Your task to perform on an android device: Open the web browser Image 0: 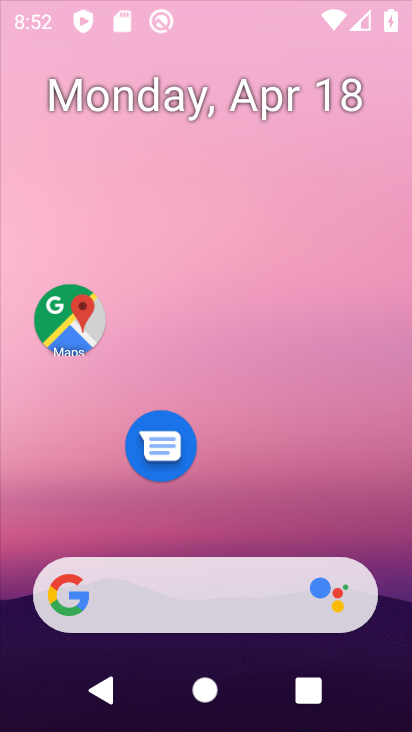
Step 0: click (300, 2)
Your task to perform on an android device: Open the web browser Image 1: 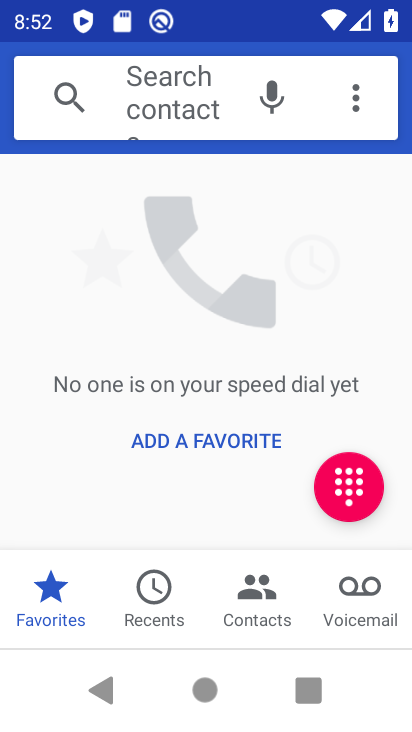
Step 1: press home button
Your task to perform on an android device: Open the web browser Image 2: 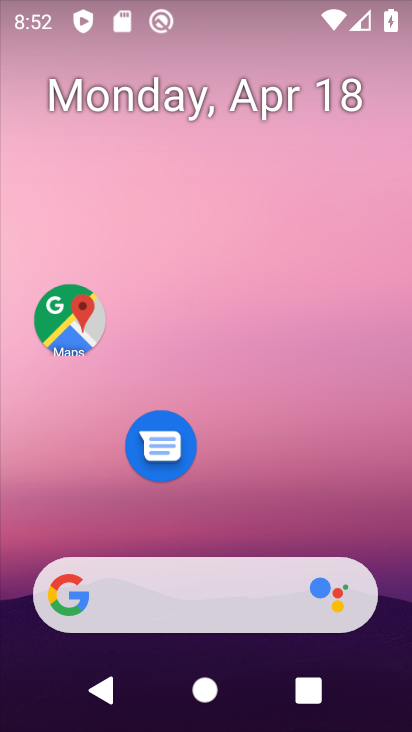
Step 2: drag from (235, 531) to (303, 3)
Your task to perform on an android device: Open the web browser Image 3: 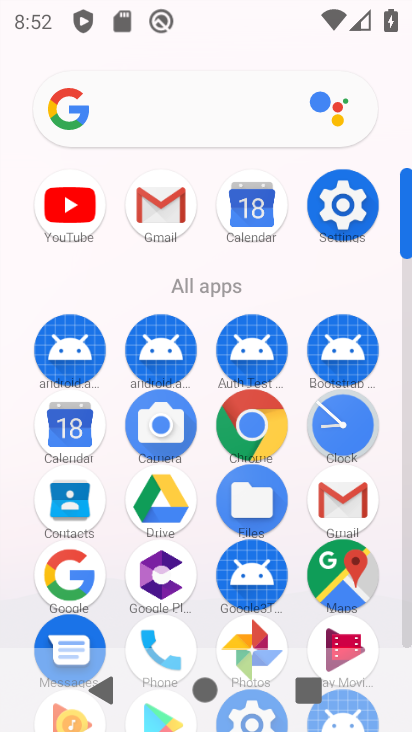
Step 3: click (251, 418)
Your task to perform on an android device: Open the web browser Image 4: 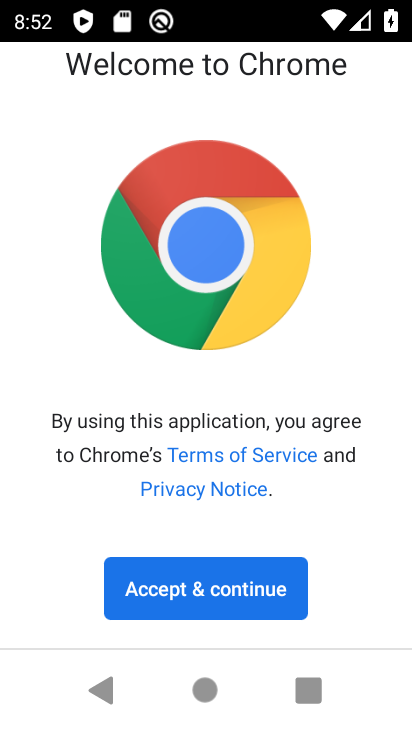
Step 4: click (199, 584)
Your task to perform on an android device: Open the web browser Image 5: 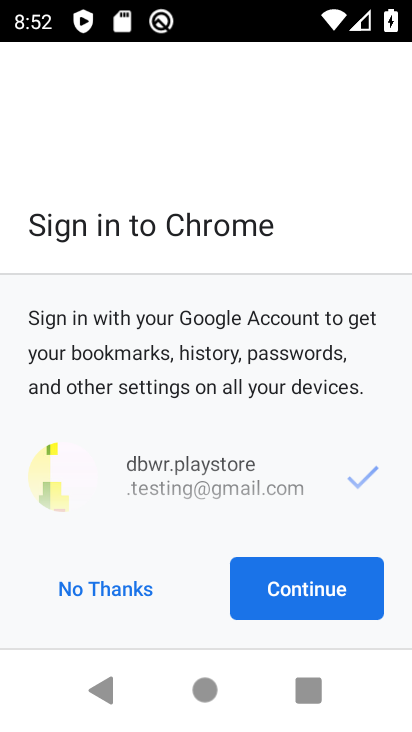
Step 5: click (302, 582)
Your task to perform on an android device: Open the web browser Image 6: 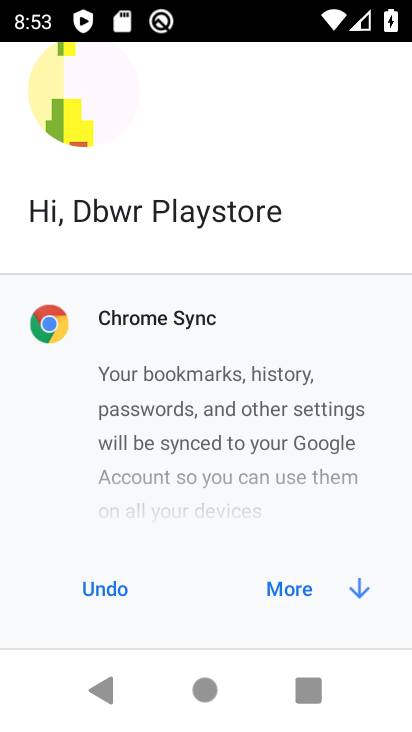
Step 6: click (302, 582)
Your task to perform on an android device: Open the web browser Image 7: 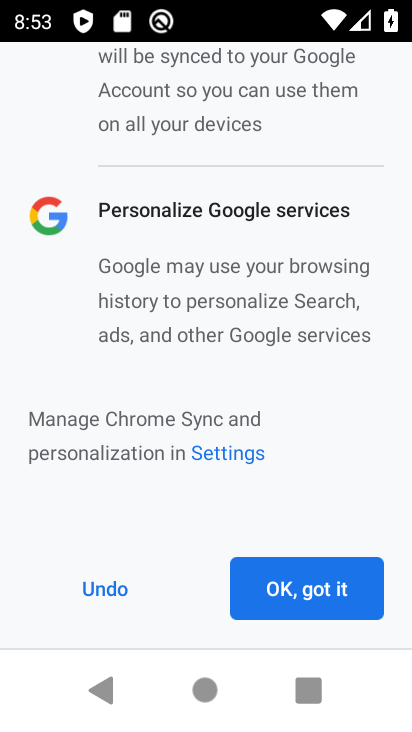
Step 7: click (302, 582)
Your task to perform on an android device: Open the web browser Image 8: 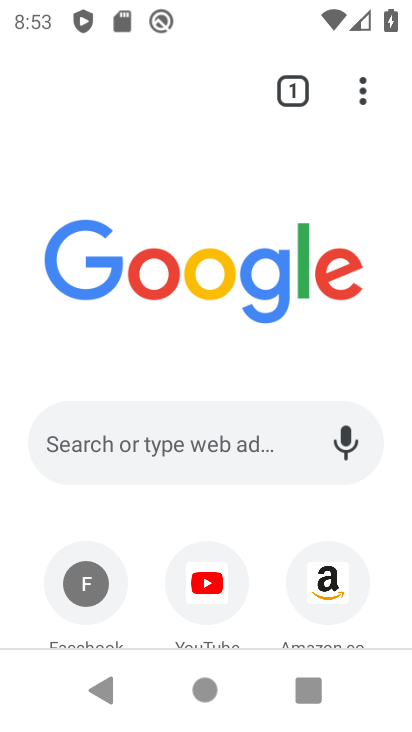
Step 8: task complete